Your task to perform on an android device: read, delete, or share a saved page in the chrome app Image 0: 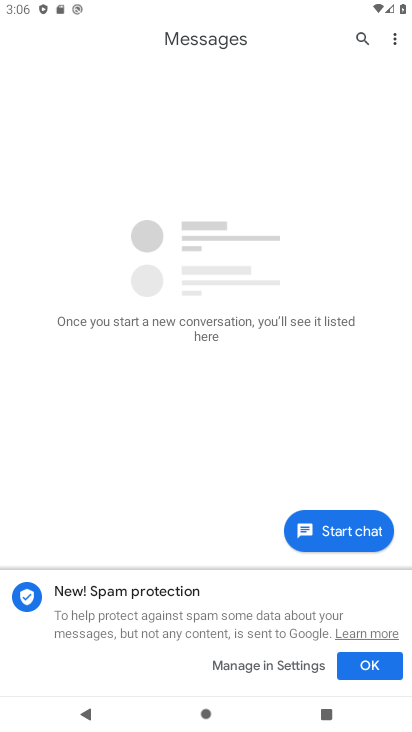
Step 0: press home button
Your task to perform on an android device: read, delete, or share a saved page in the chrome app Image 1: 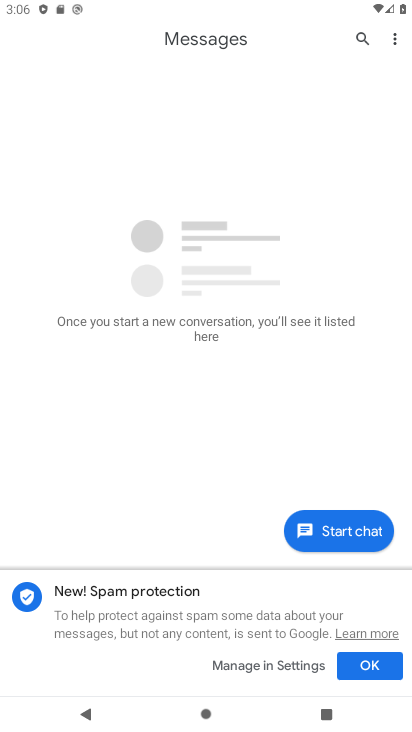
Step 1: press home button
Your task to perform on an android device: read, delete, or share a saved page in the chrome app Image 2: 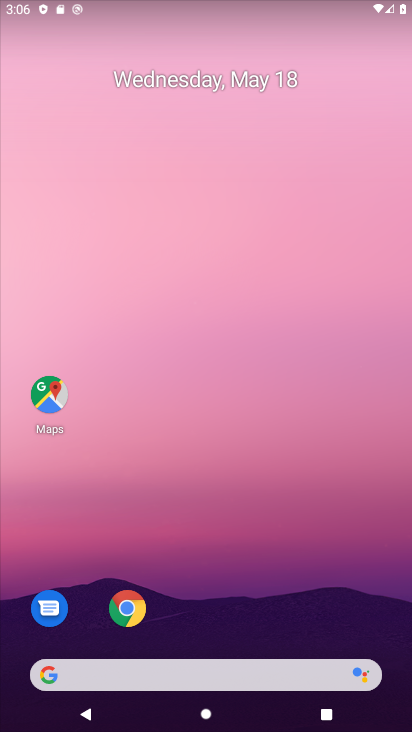
Step 2: click (122, 618)
Your task to perform on an android device: read, delete, or share a saved page in the chrome app Image 3: 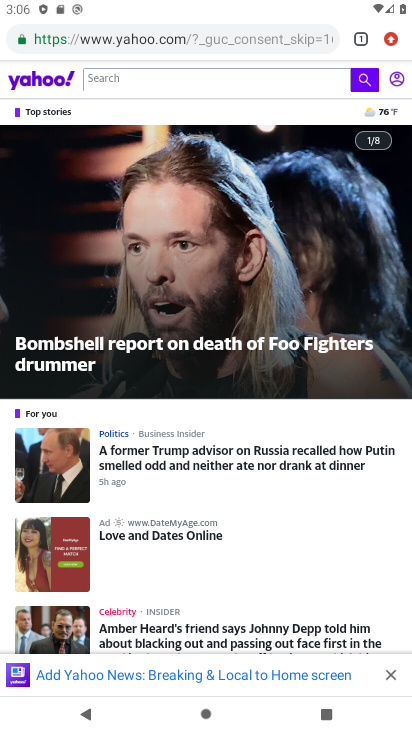
Step 3: click (388, 37)
Your task to perform on an android device: read, delete, or share a saved page in the chrome app Image 4: 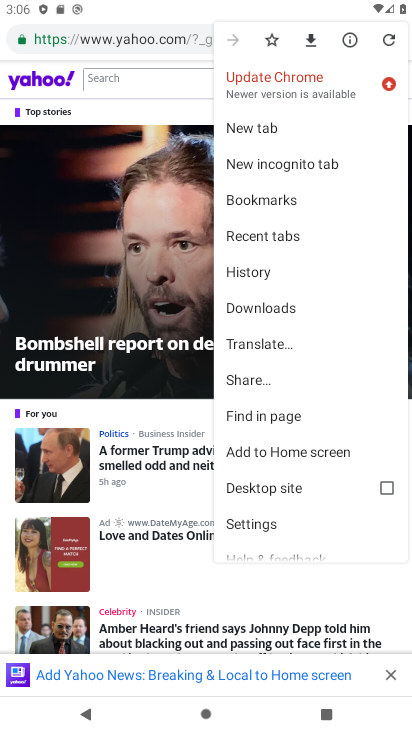
Step 4: click (277, 305)
Your task to perform on an android device: read, delete, or share a saved page in the chrome app Image 5: 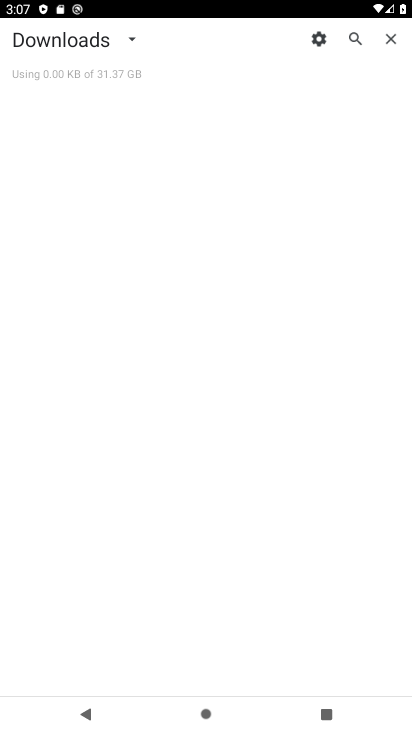
Step 5: task complete